Your task to perform on an android device: change the clock display to show seconds Image 0: 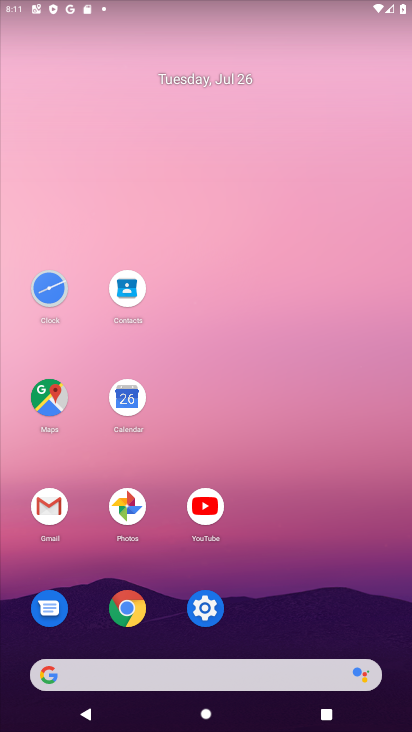
Step 0: click (43, 288)
Your task to perform on an android device: change the clock display to show seconds Image 1: 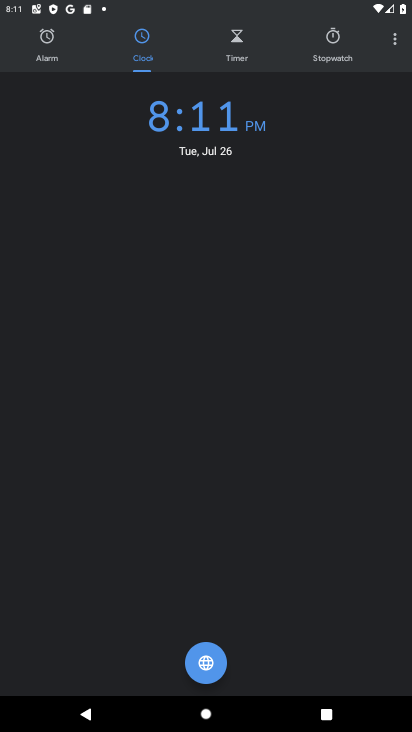
Step 1: click (395, 41)
Your task to perform on an android device: change the clock display to show seconds Image 2: 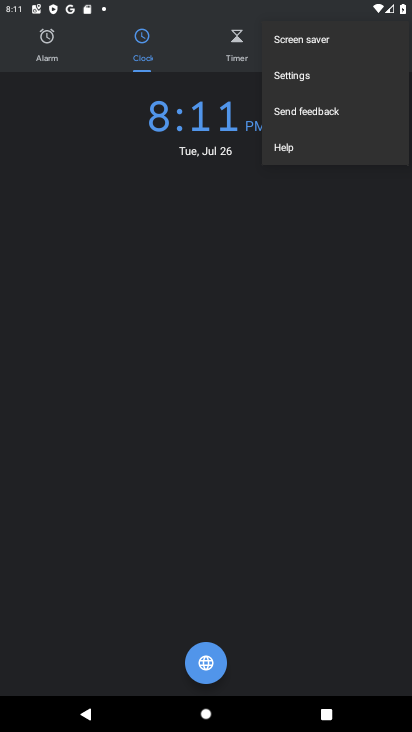
Step 2: click (299, 77)
Your task to perform on an android device: change the clock display to show seconds Image 3: 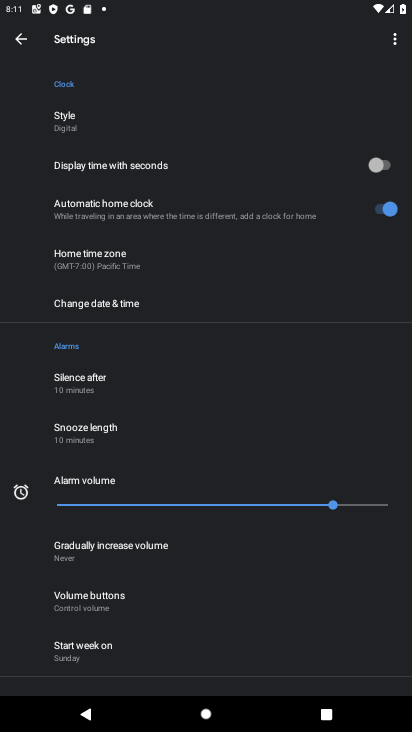
Step 3: click (379, 166)
Your task to perform on an android device: change the clock display to show seconds Image 4: 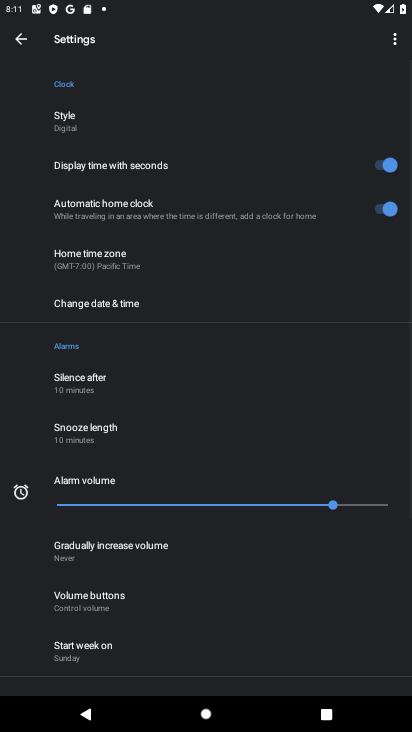
Step 4: task complete